Your task to perform on an android device: Search for sushi restaurants on Maps Image 0: 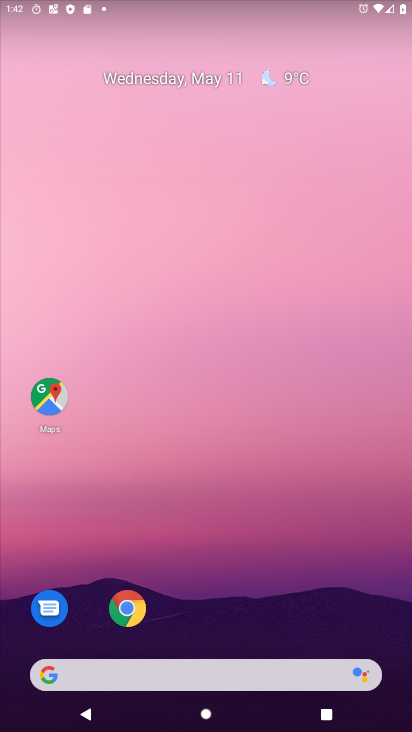
Step 0: drag from (207, 724) to (209, 5)
Your task to perform on an android device: Search for sushi restaurants on Maps Image 1: 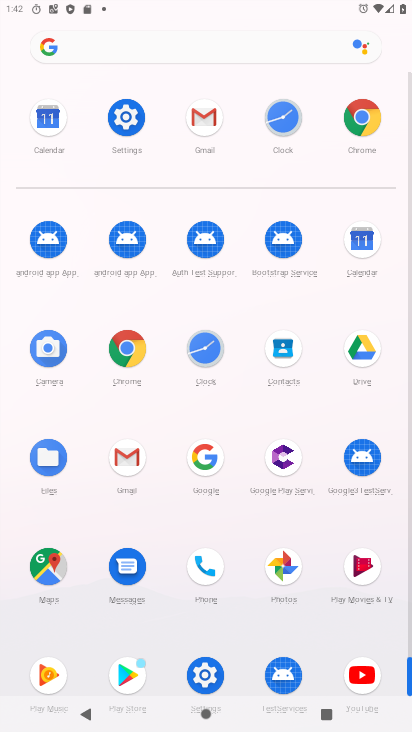
Step 1: click (53, 587)
Your task to perform on an android device: Search for sushi restaurants on Maps Image 2: 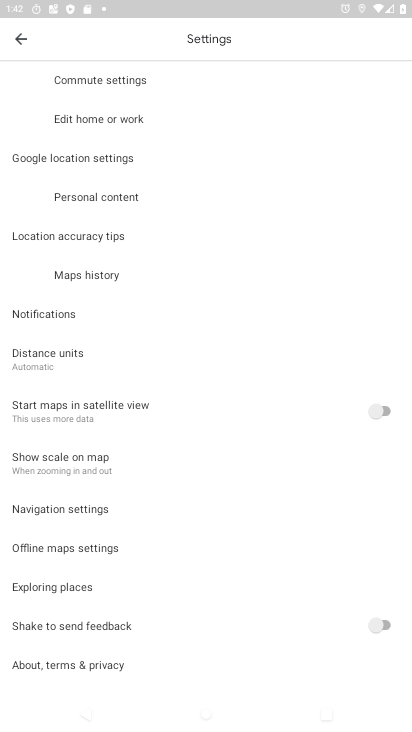
Step 2: click (19, 46)
Your task to perform on an android device: Search for sushi restaurants on Maps Image 3: 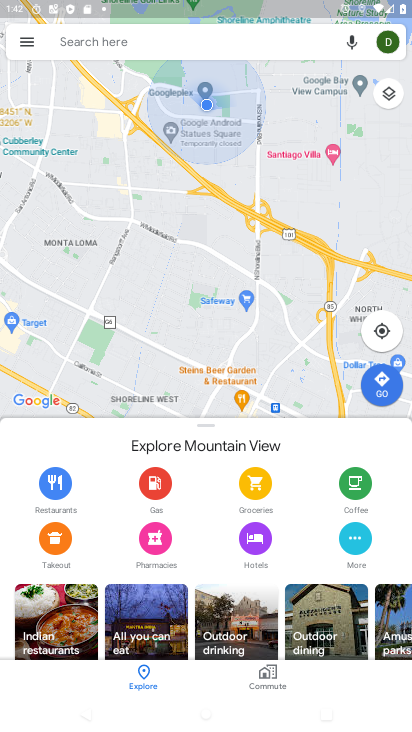
Step 3: click (147, 47)
Your task to perform on an android device: Search for sushi restaurants on Maps Image 4: 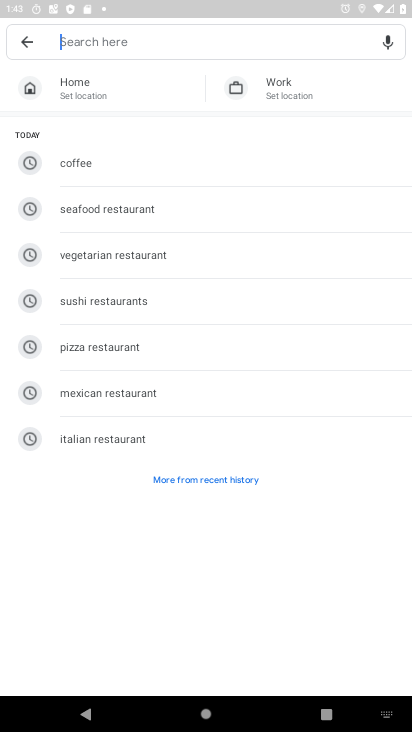
Step 4: click (114, 309)
Your task to perform on an android device: Search for sushi restaurants on Maps Image 5: 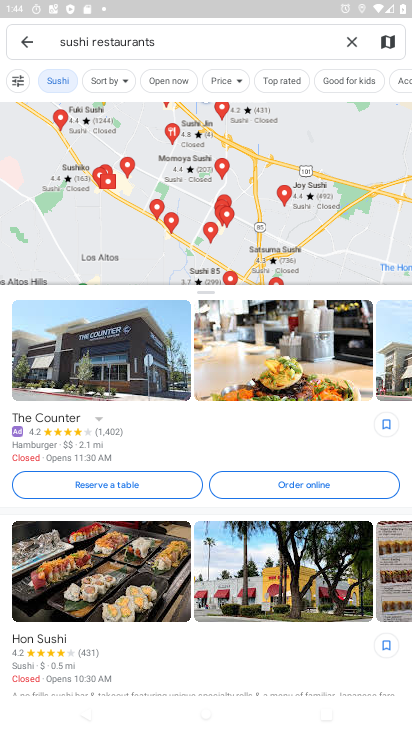
Step 5: task complete